Your task to perform on an android device: Open Google Chrome Image 0: 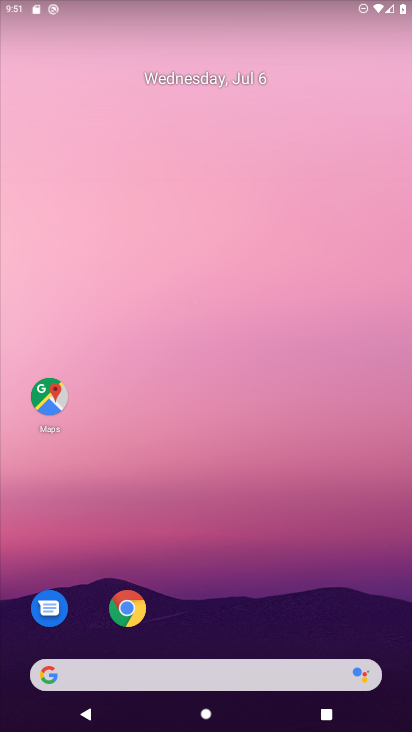
Step 0: click (131, 609)
Your task to perform on an android device: Open Google Chrome Image 1: 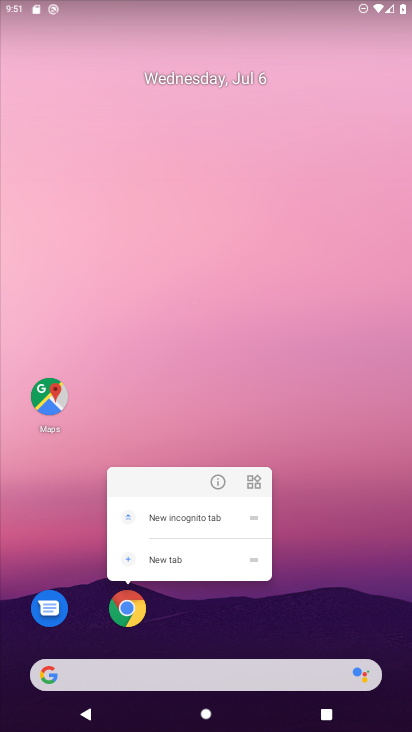
Step 1: click (121, 616)
Your task to perform on an android device: Open Google Chrome Image 2: 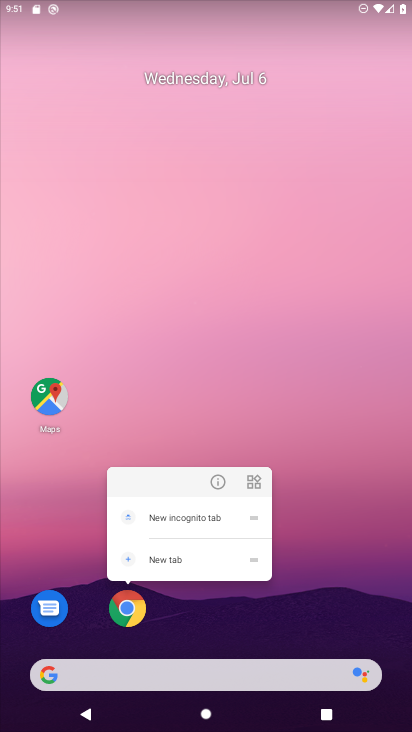
Step 2: click (133, 615)
Your task to perform on an android device: Open Google Chrome Image 3: 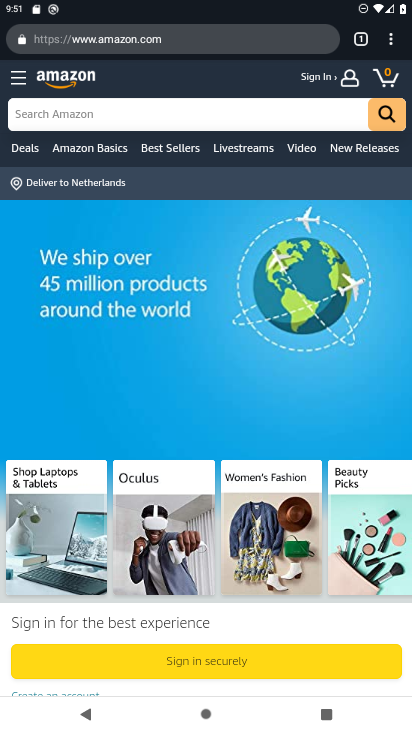
Step 3: task complete